Your task to perform on an android device: turn vacation reply on in the gmail app Image 0: 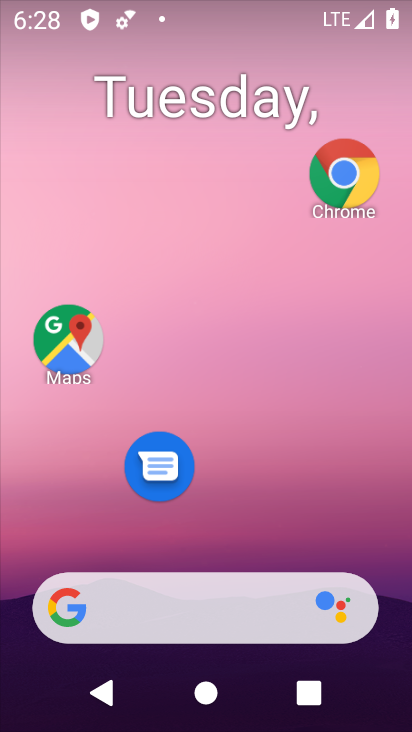
Step 0: drag from (304, 447) to (248, 95)
Your task to perform on an android device: turn vacation reply on in the gmail app Image 1: 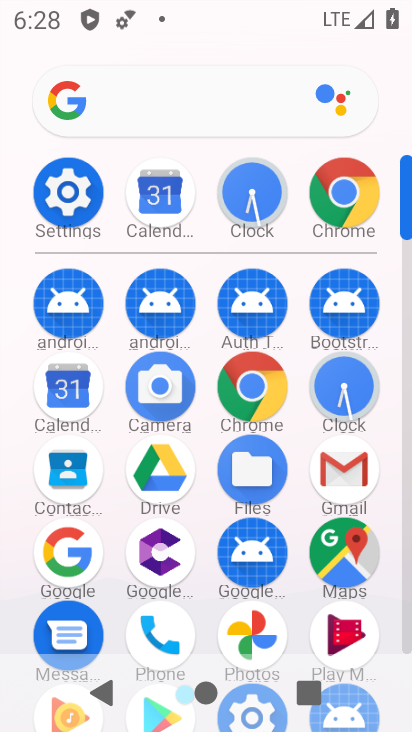
Step 1: click (337, 491)
Your task to perform on an android device: turn vacation reply on in the gmail app Image 2: 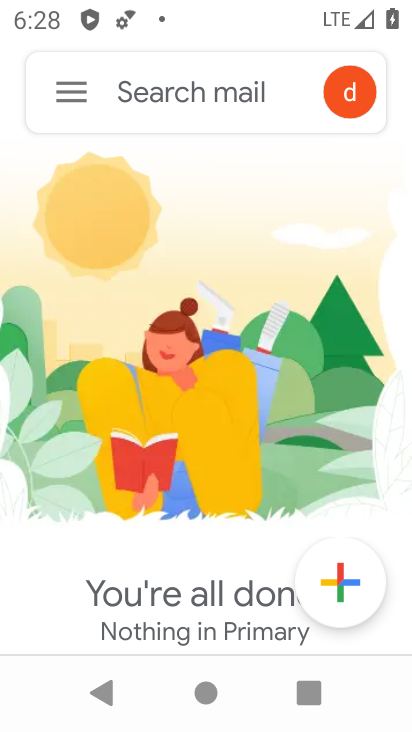
Step 2: click (79, 92)
Your task to perform on an android device: turn vacation reply on in the gmail app Image 3: 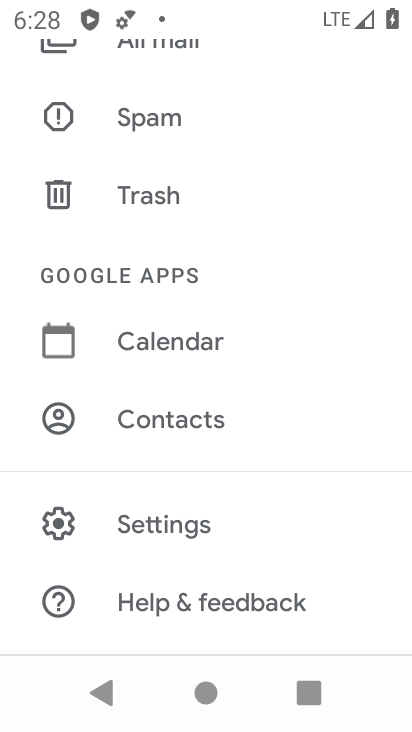
Step 3: click (128, 527)
Your task to perform on an android device: turn vacation reply on in the gmail app Image 4: 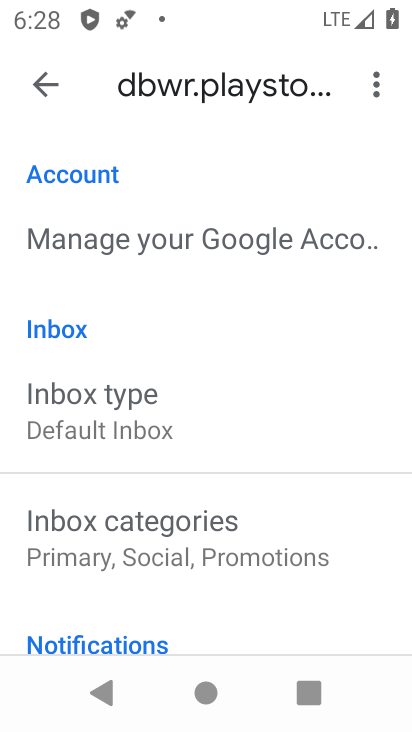
Step 4: drag from (209, 612) to (231, 13)
Your task to perform on an android device: turn vacation reply on in the gmail app Image 5: 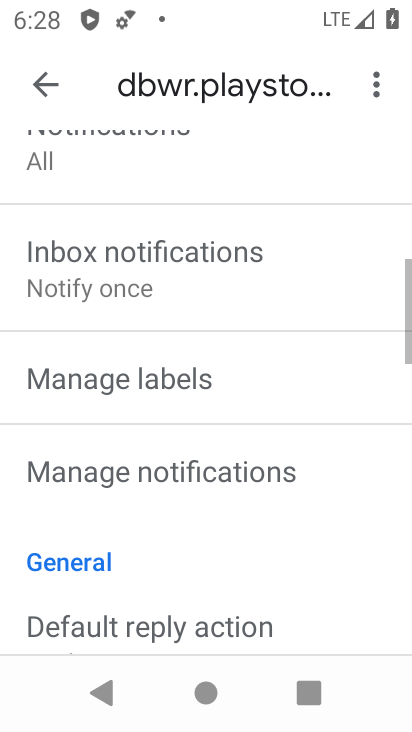
Step 5: drag from (229, 490) to (216, 87)
Your task to perform on an android device: turn vacation reply on in the gmail app Image 6: 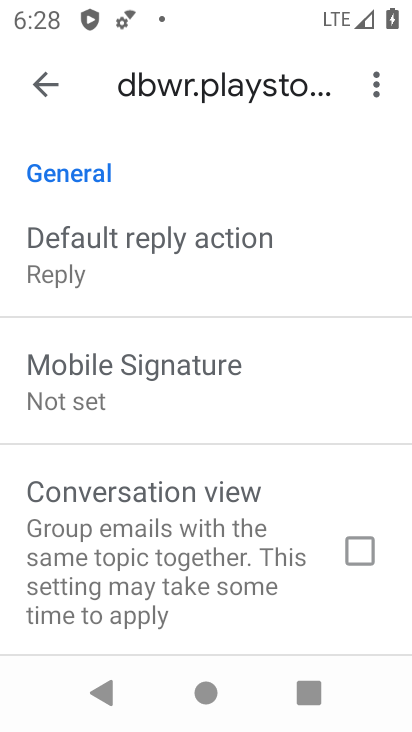
Step 6: drag from (182, 592) to (147, 274)
Your task to perform on an android device: turn vacation reply on in the gmail app Image 7: 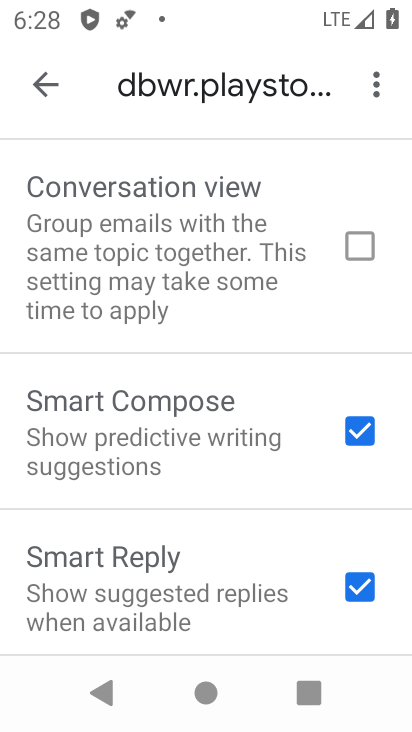
Step 7: drag from (147, 597) to (175, 258)
Your task to perform on an android device: turn vacation reply on in the gmail app Image 8: 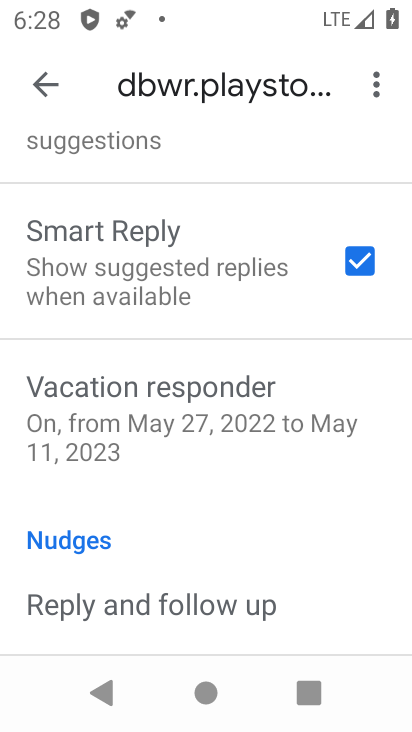
Step 8: click (177, 400)
Your task to perform on an android device: turn vacation reply on in the gmail app Image 9: 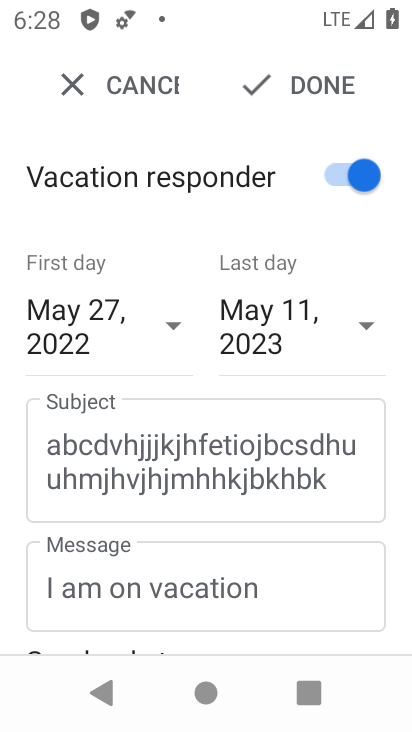
Step 9: click (165, 322)
Your task to perform on an android device: turn vacation reply on in the gmail app Image 10: 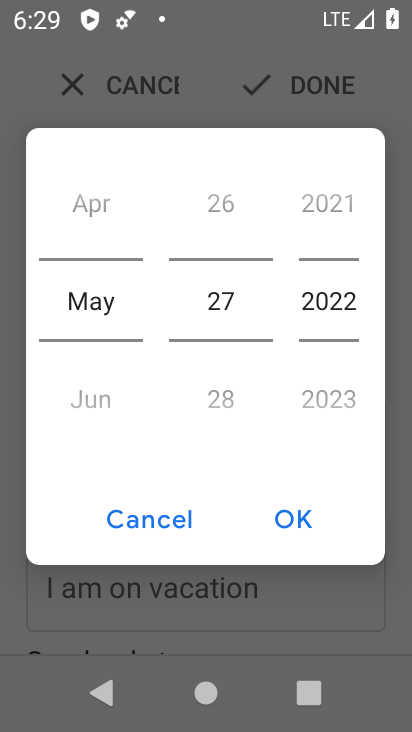
Step 10: drag from (208, 398) to (230, 254)
Your task to perform on an android device: turn vacation reply on in the gmail app Image 11: 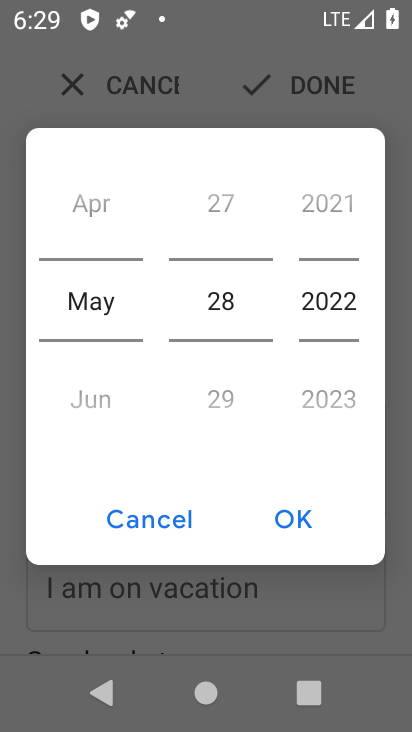
Step 11: drag from (230, 396) to (238, 286)
Your task to perform on an android device: turn vacation reply on in the gmail app Image 12: 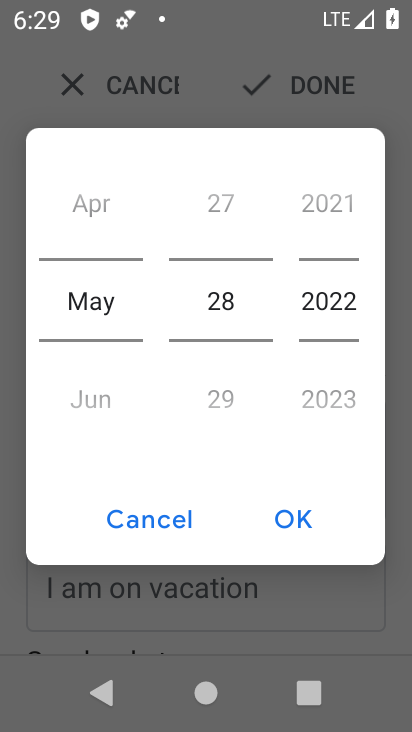
Step 12: drag from (238, 403) to (236, 255)
Your task to perform on an android device: turn vacation reply on in the gmail app Image 13: 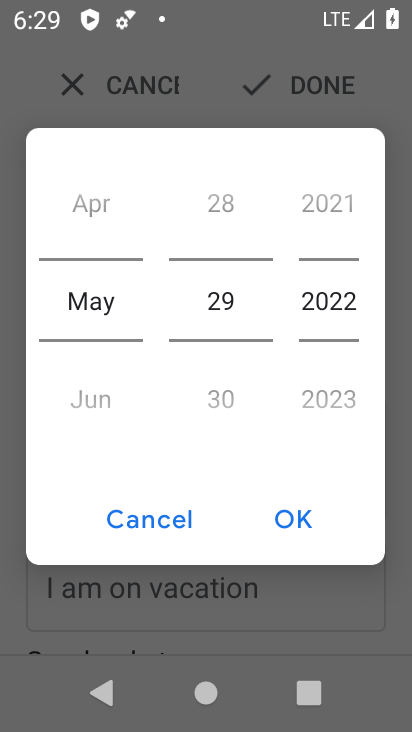
Step 13: drag from (238, 412) to (242, 209)
Your task to perform on an android device: turn vacation reply on in the gmail app Image 14: 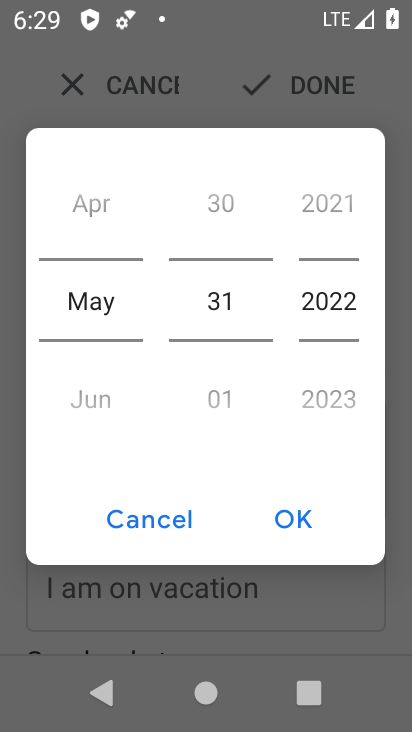
Step 14: click (305, 522)
Your task to perform on an android device: turn vacation reply on in the gmail app Image 15: 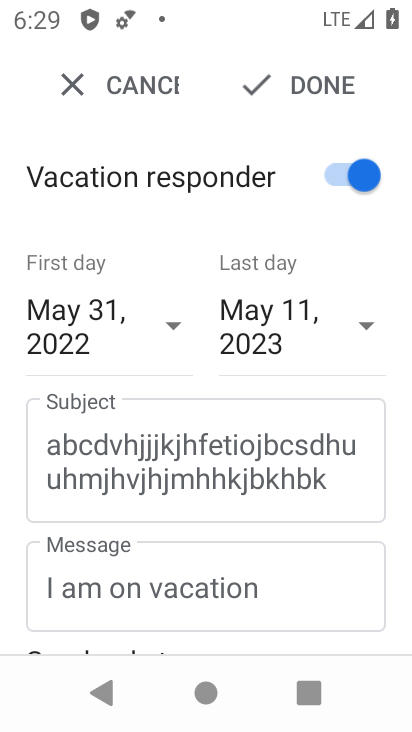
Step 15: click (268, 76)
Your task to perform on an android device: turn vacation reply on in the gmail app Image 16: 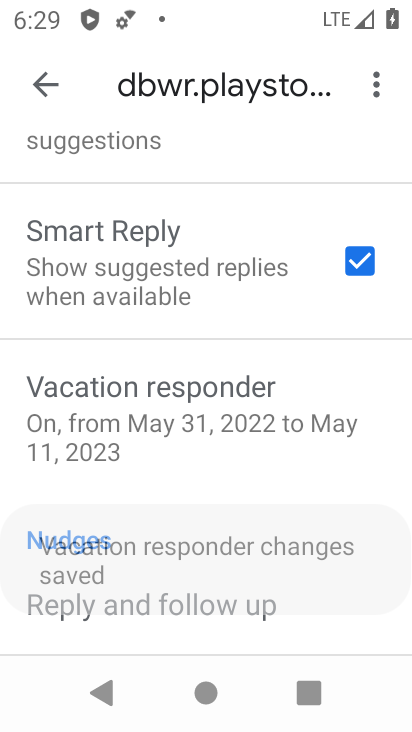
Step 16: task complete